Your task to perform on an android device: find snoozed emails in the gmail app Image 0: 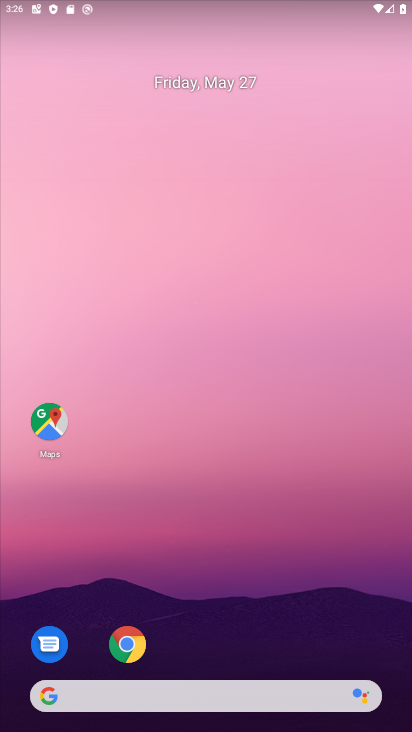
Step 0: drag from (253, 514) to (126, 39)
Your task to perform on an android device: find snoozed emails in the gmail app Image 1: 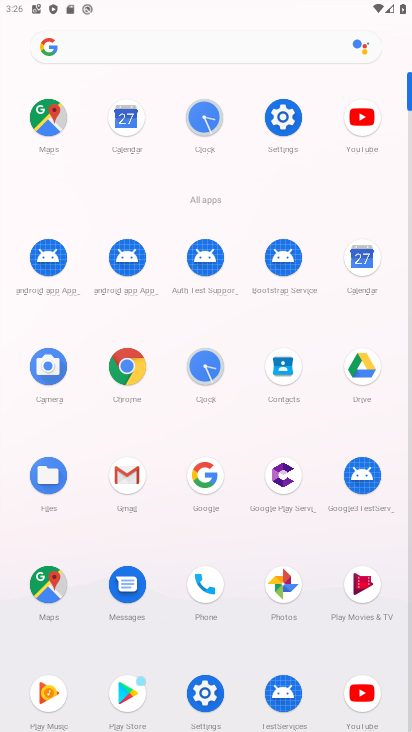
Step 1: click (135, 484)
Your task to perform on an android device: find snoozed emails in the gmail app Image 2: 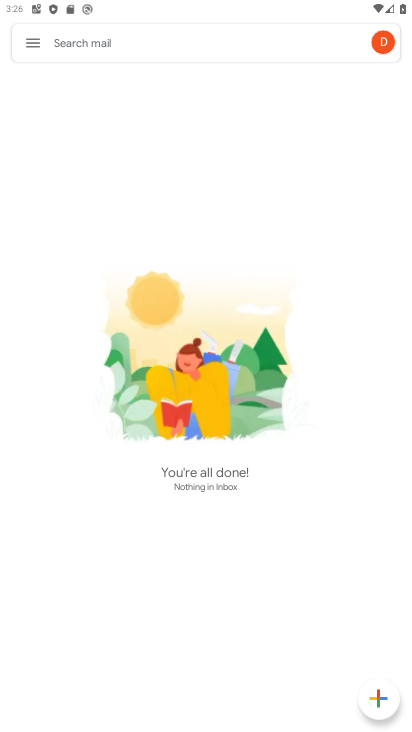
Step 2: click (30, 46)
Your task to perform on an android device: find snoozed emails in the gmail app Image 3: 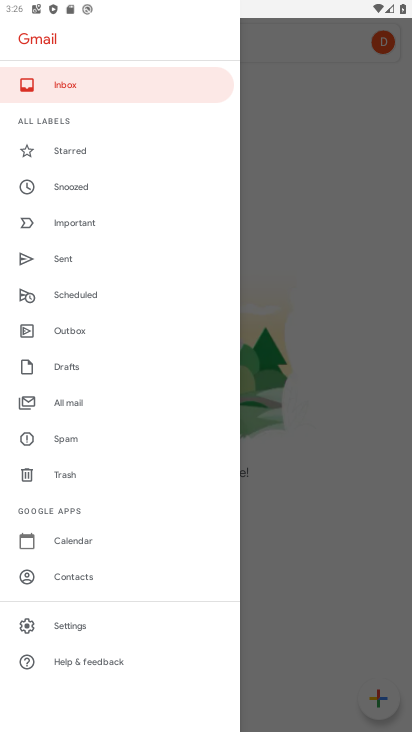
Step 3: click (82, 187)
Your task to perform on an android device: find snoozed emails in the gmail app Image 4: 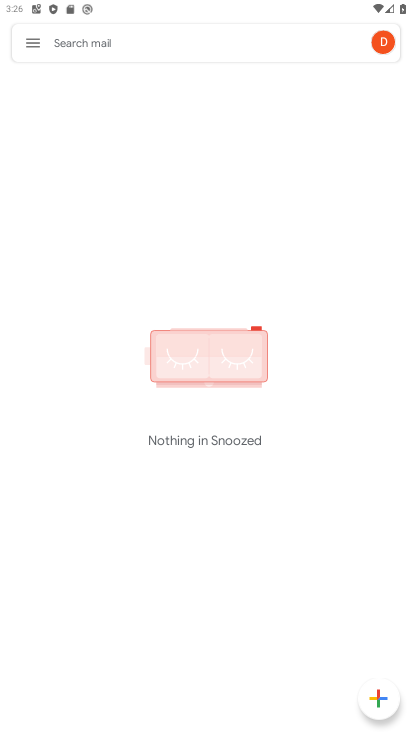
Step 4: task complete